Your task to perform on an android device: change timer sound Image 0: 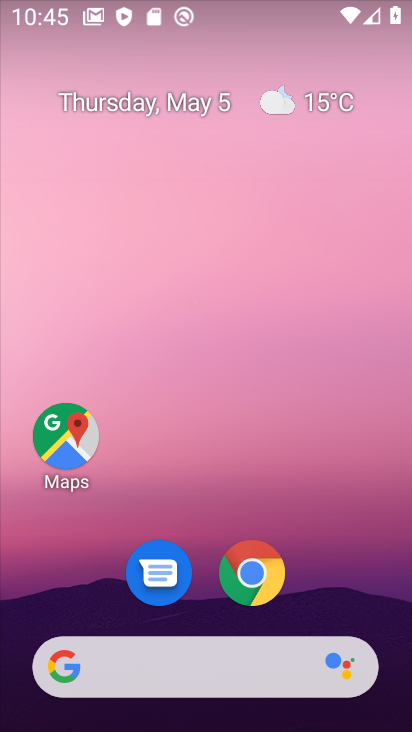
Step 0: drag from (87, 613) to (261, 20)
Your task to perform on an android device: change timer sound Image 1: 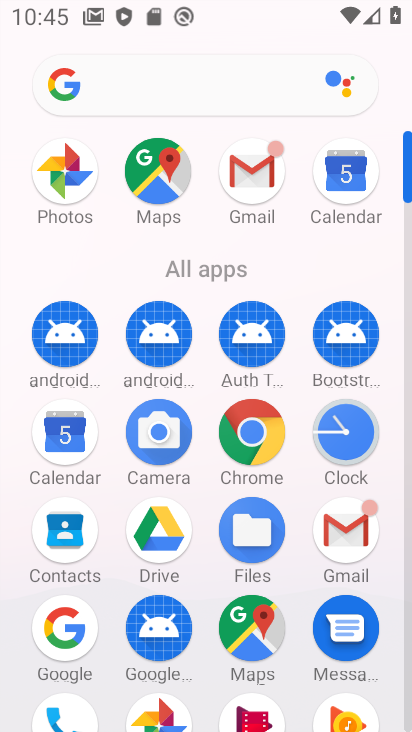
Step 1: click (355, 434)
Your task to perform on an android device: change timer sound Image 2: 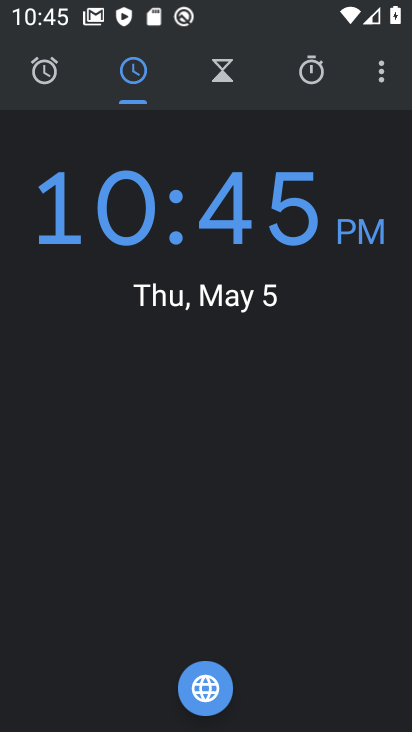
Step 2: click (369, 70)
Your task to perform on an android device: change timer sound Image 3: 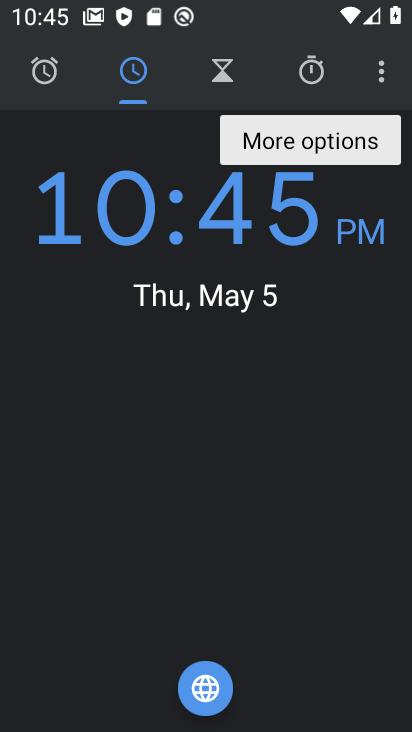
Step 3: click (361, 144)
Your task to perform on an android device: change timer sound Image 4: 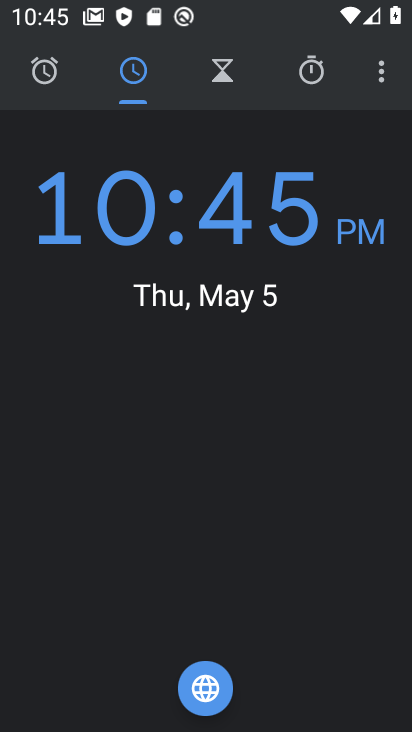
Step 4: click (383, 75)
Your task to perform on an android device: change timer sound Image 5: 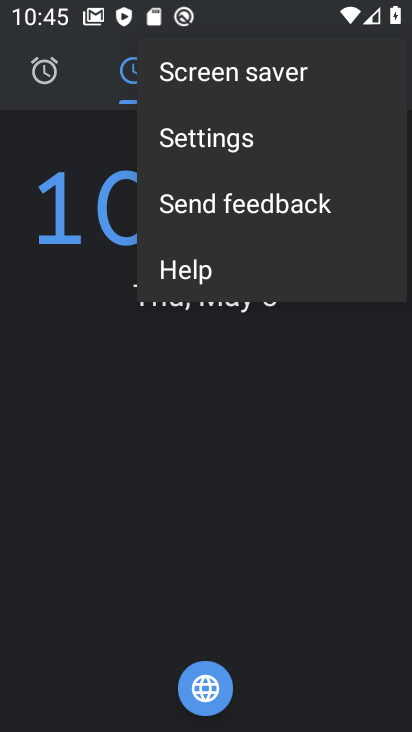
Step 5: click (330, 156)
Your task to perform on an android device: change timer sound Image 6: 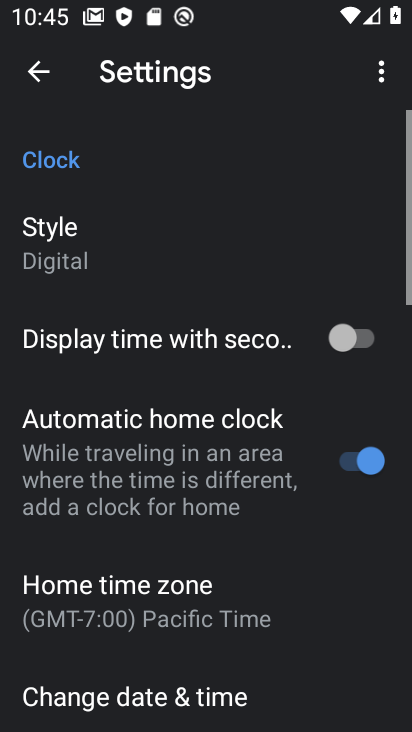
Step 6: drag from (213, 659) to (324, 244)
Your task to perform on an android device: change timer sound Image 7: 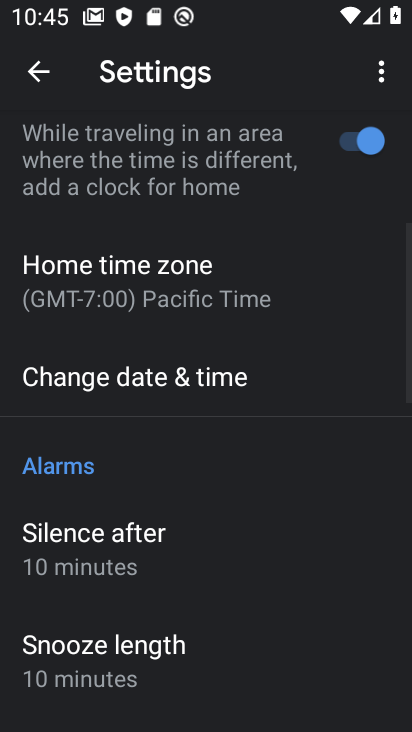
Step 7: drag from (156, 684) to (267, 222)
Your task to perform on an android device: change timer sound Image 8: 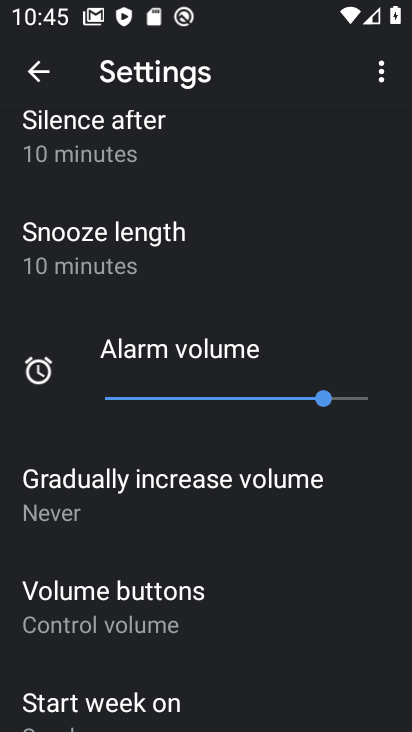
Step 8: drag from (101, 594) to (233, 179)
Your task to perform on an android device: change timer sound Image 9: 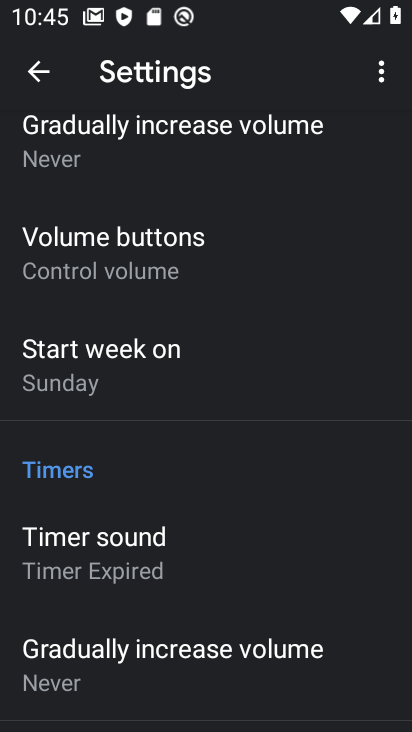
Step 9: click (167, 549)
Your task to perform on an android device: change timer sound Image 10: 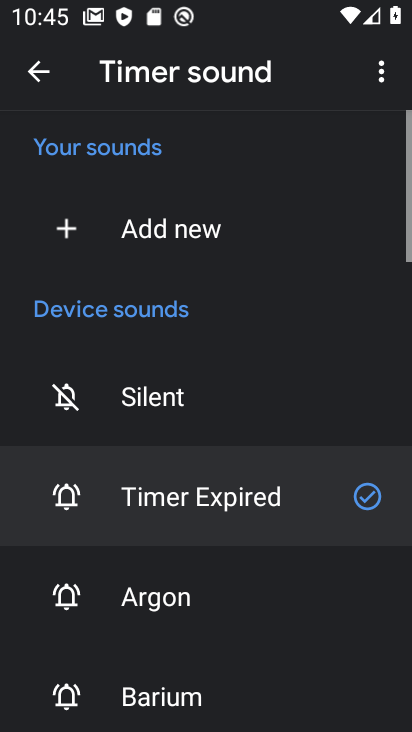
Step 10: drag from (196, 687) to (323, 161)
Your task to perform on an android device: change timer sound Image 11: 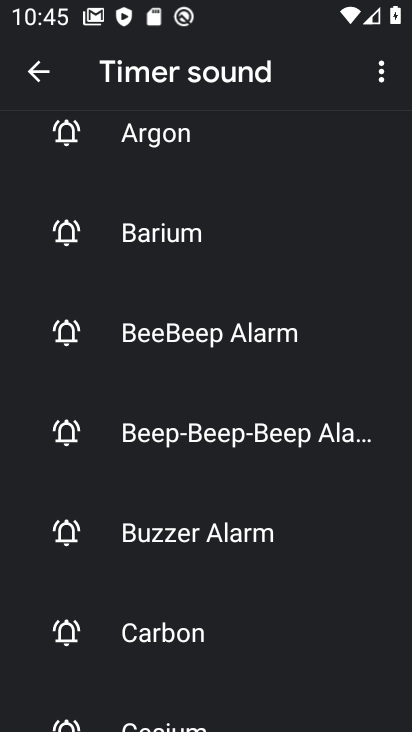
Step 11: click (242, 646)
Your task to perform on an android device: change timer sound Image 12: 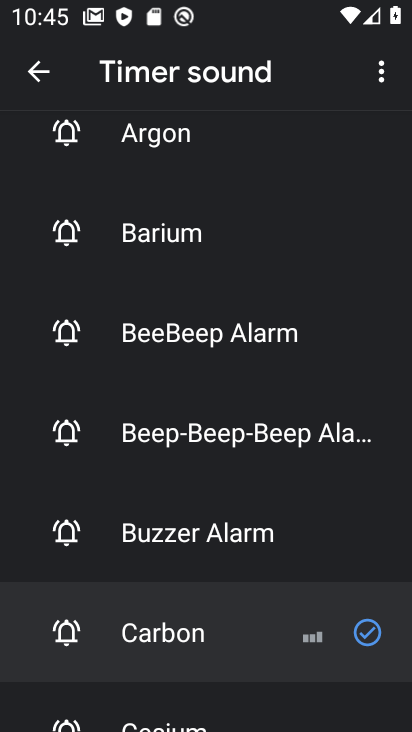
Step 12: task complete